Your task to perform on an android device: Open eBay Image 0: 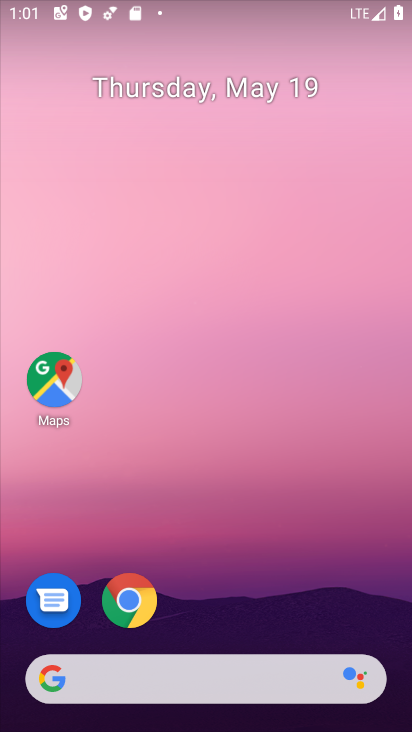
Step 0: click (127, 599)
Your task to perform on an android device: Open eBay Image 1: 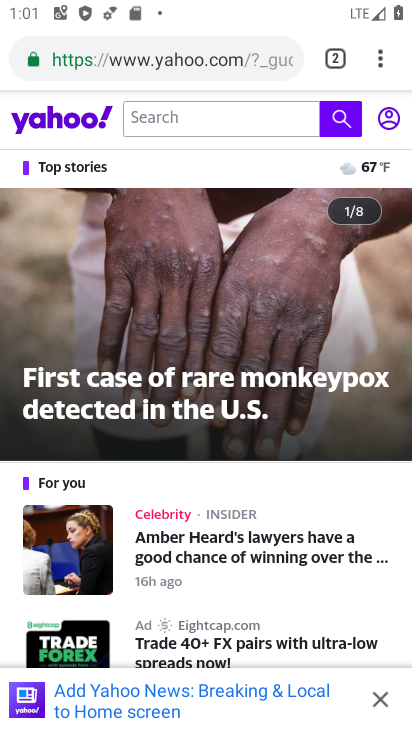
Step 1: click (380, 51)
Your task to perform on an android device: Open eBay Image 2: 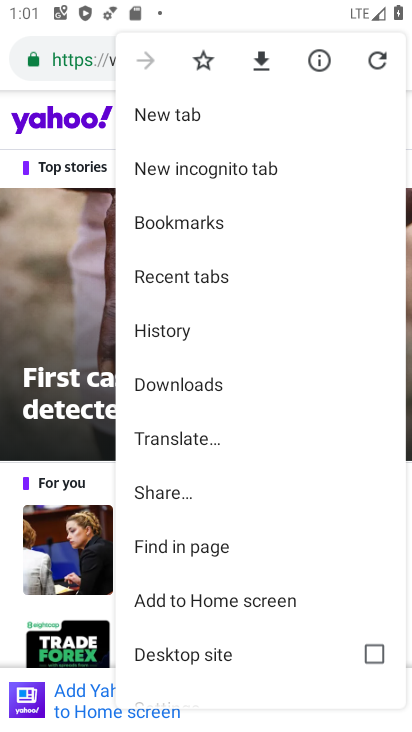
Step 2: click (183, 118)
Your task to perform on an android device: Open eBay Image 3: 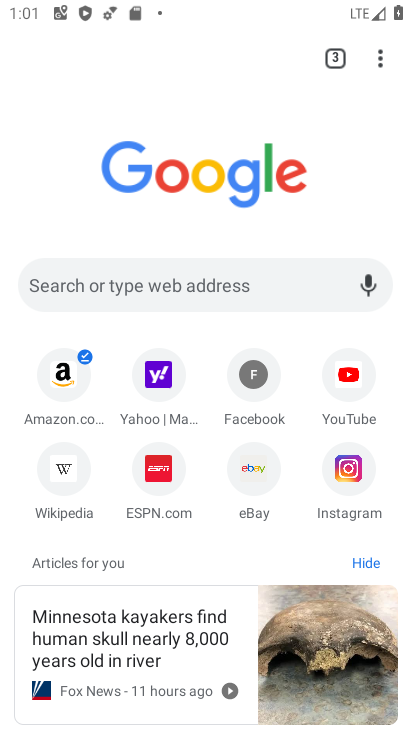
Step 3: click (214, 286)
Your task to perform on an android device: Open eBay Image 4: 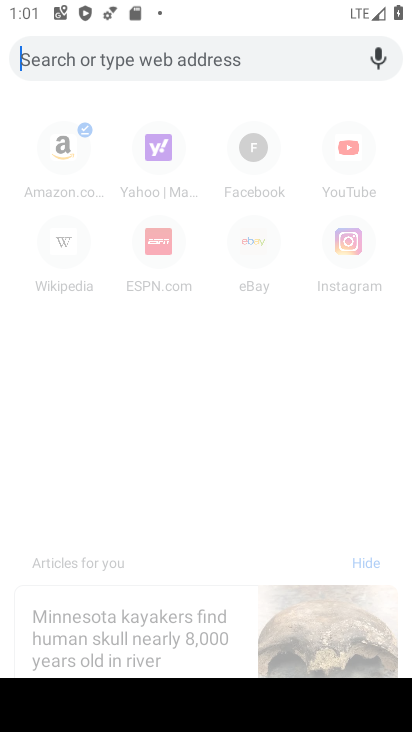
Step 4: type "ebay"
Your task to perform on an android device: Open eBay Image 5: 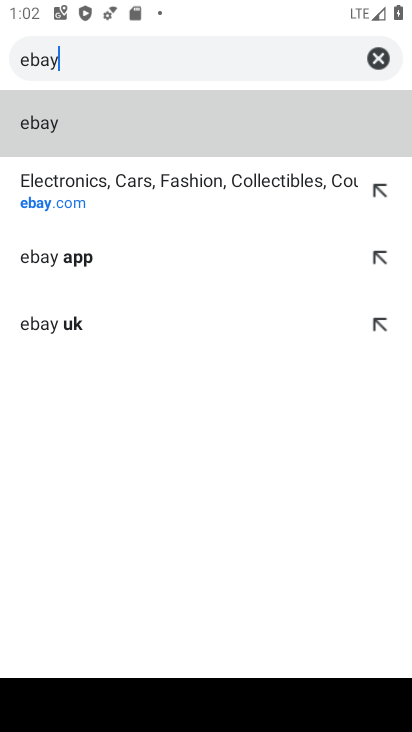
Step 5: click (68, 136)
Your task to perform on an android device: Open eBay Image 6: 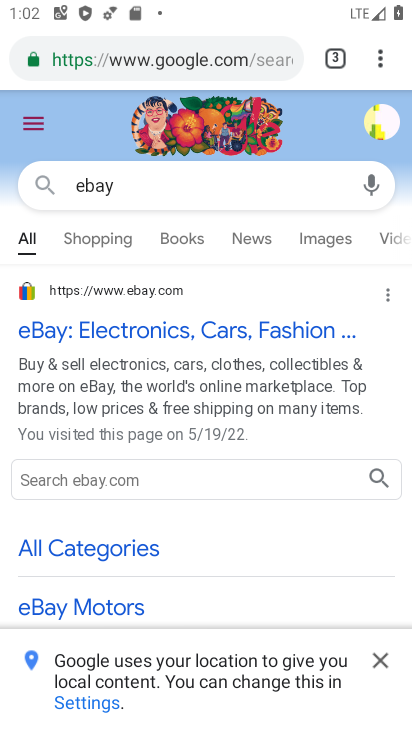
Step 6: task complete